Your task to perform on an android device: toggle notifications settings in the gmail app Image 0: 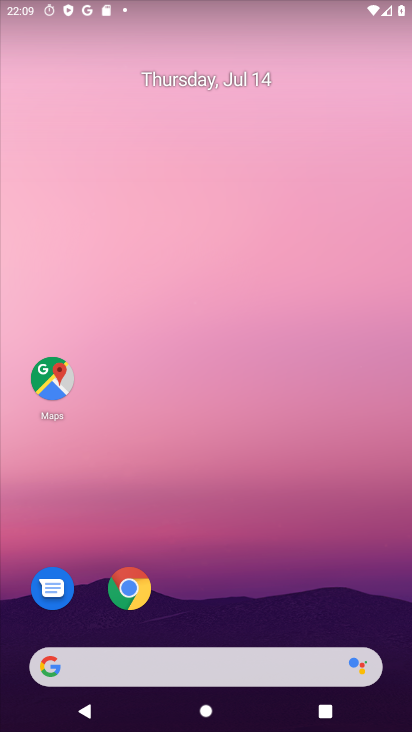
Step 0: drag from (271, 591) to (287, 47)
Your task to perform on an android device: toggle notifications settings in the gmail app Image 1: 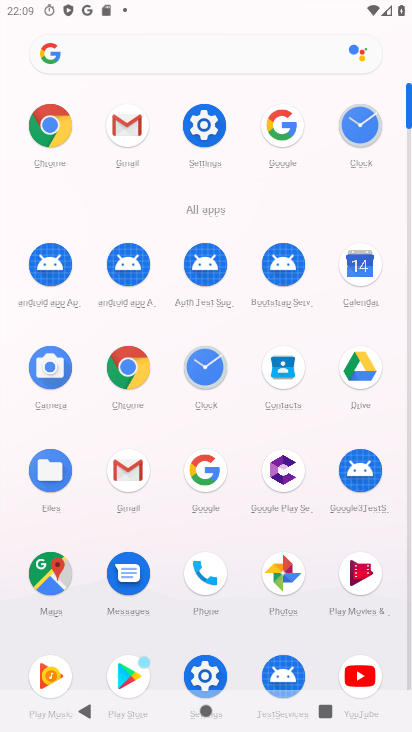
Step 1: click (122, 127)
Your task to perform on an android device: toggle notifications settings in the gmail app Image 2: 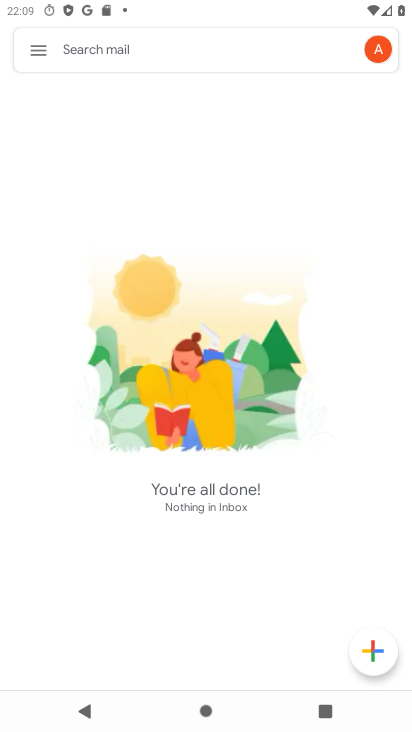
Step 2: click (38, 53)
Your task to perform on an android device: toggle notifications settings in the gmail app Image 3: 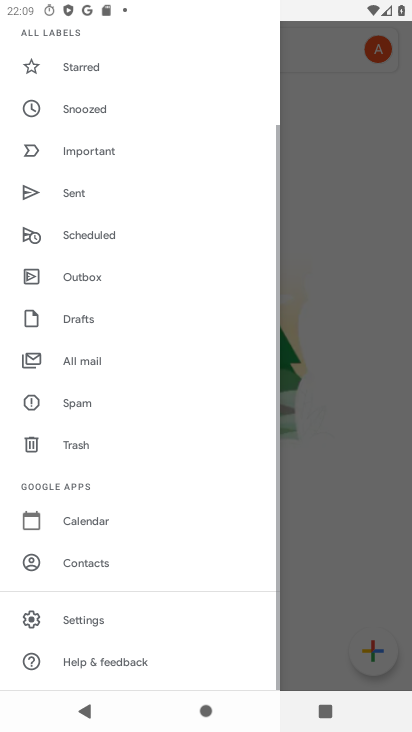
Step 3: click (107, 613)
Your task to perform on an android device: toggle notifications settings in the gmail app Image 4: 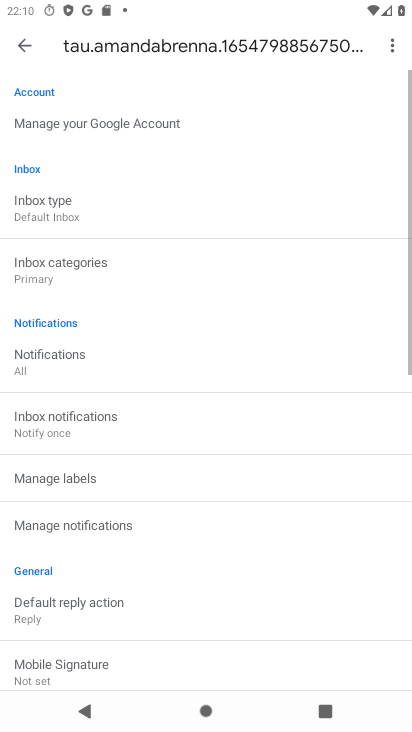
Step 4: click (83, 385)
Your task to perform on an android device: toggle notifications settings in the gmail app Image 5: 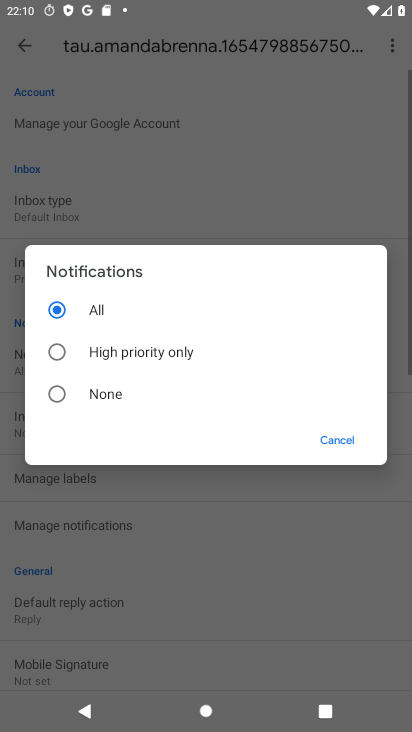
Step 5: click (57, 391)
Your task to perform on an android device: toggle notifications settings in the gmail app Image 6: 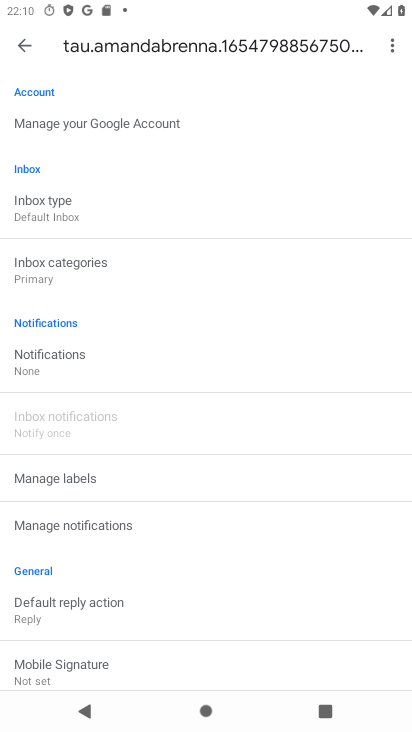
Step 6: task complete